Your task to perform on an android device: What is the recent news? Image 0: 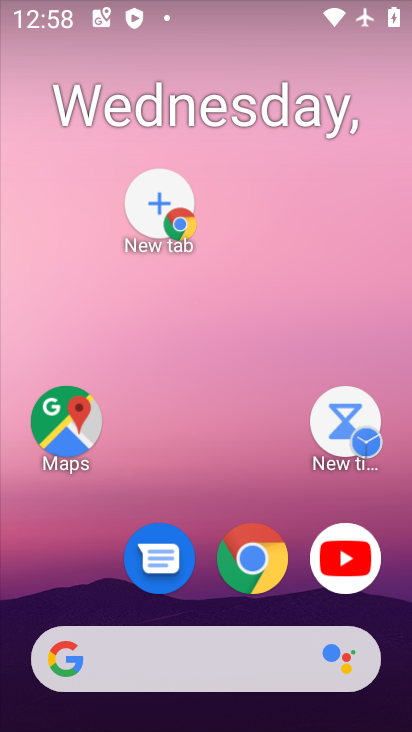
Step 0: click (409, 438)
Your task to perform on an android device: What is the recent news? Image 1: 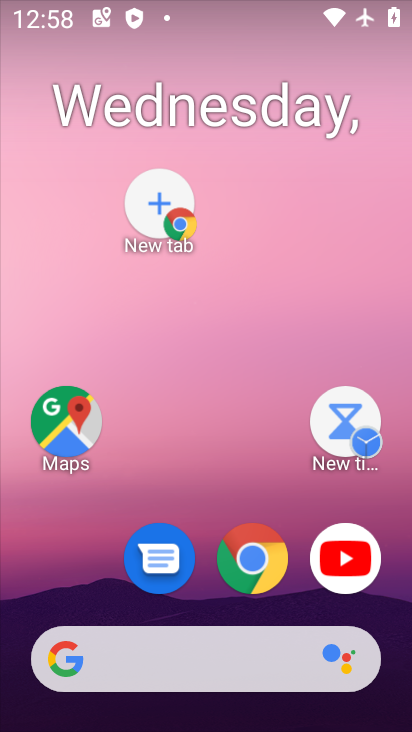
Step 1: task complete